Your task to perform on an android device: turn off notifications settings in the gmail app Image 0: 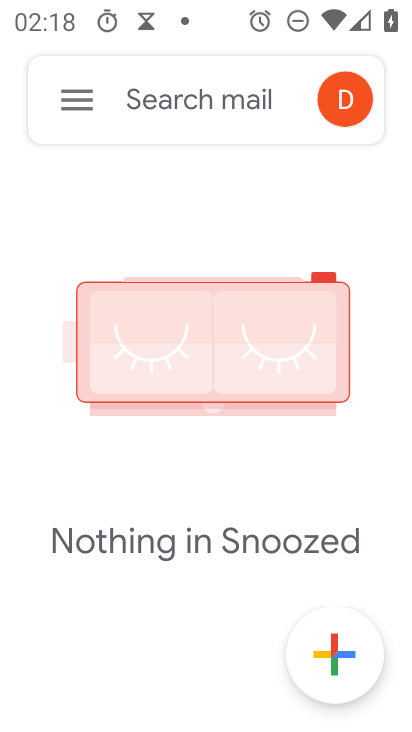
Step 0: press home button
Your task to perform on an android device: turn off notifications settings in the gmail app Image 1: 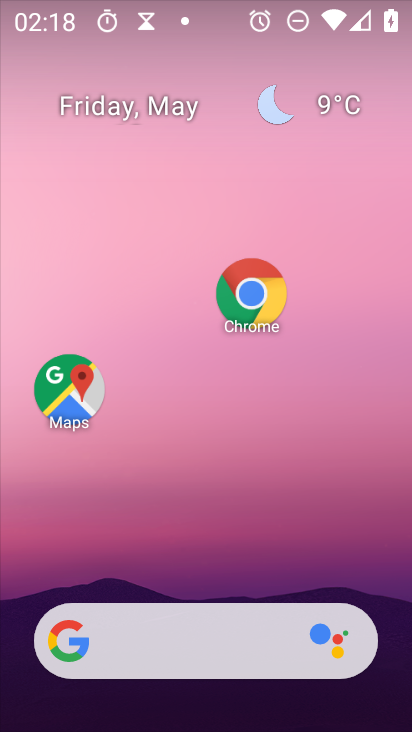
Step 1: drag from (195, 629) to (340, 154)
Your task to perform on an android device: turn off notifications settings in the gmail app Image 2: 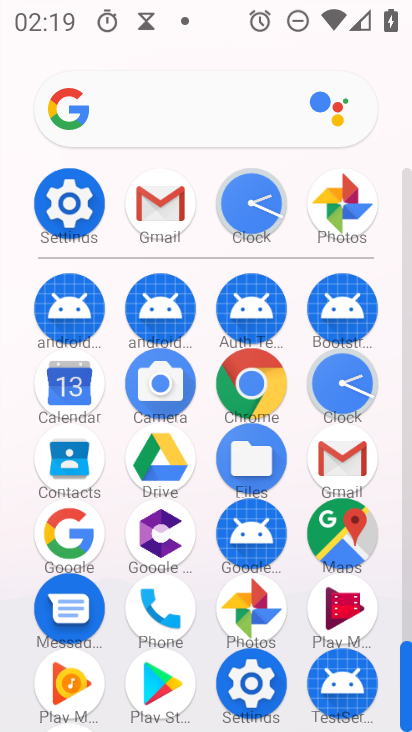
Step 2: click (147, 212)
Your task to perform on an android device: turn off notifications settings in the gmail app Image 3: 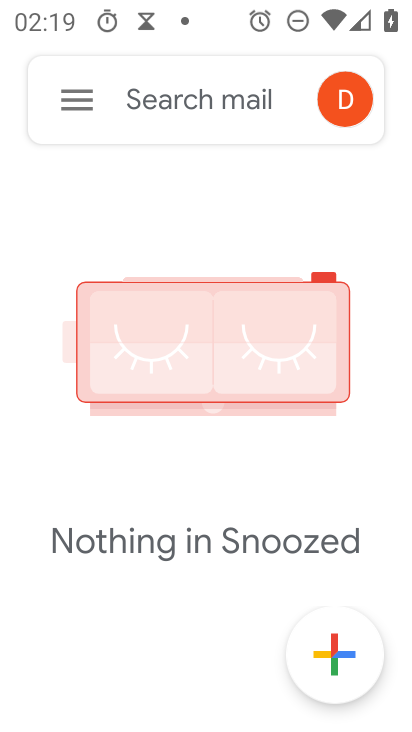
Step 3: click (80, 100)
Your task to perform on an android device: turn off notifications settings in the gmail app Image 4: 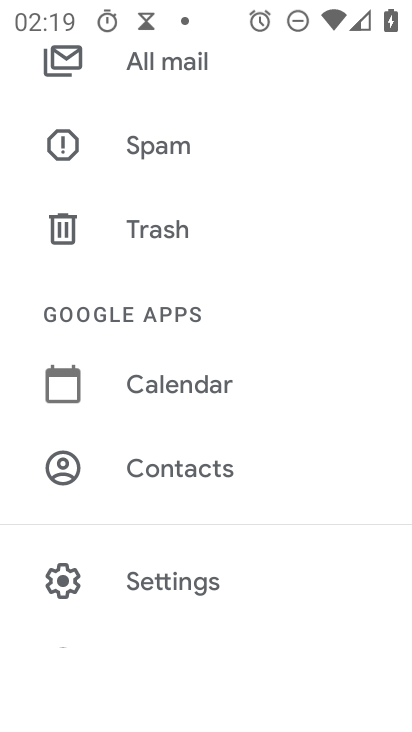
Step 4: click (181, 576)
Your task to perform on an android device: turn off notifications settings in the gmail app Image 5: 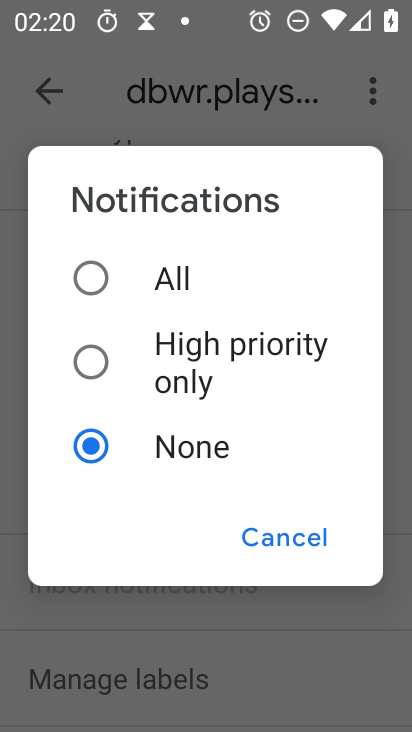
Step 5: task complete